Your task to perform on an android device: Go to display settings Image 0: 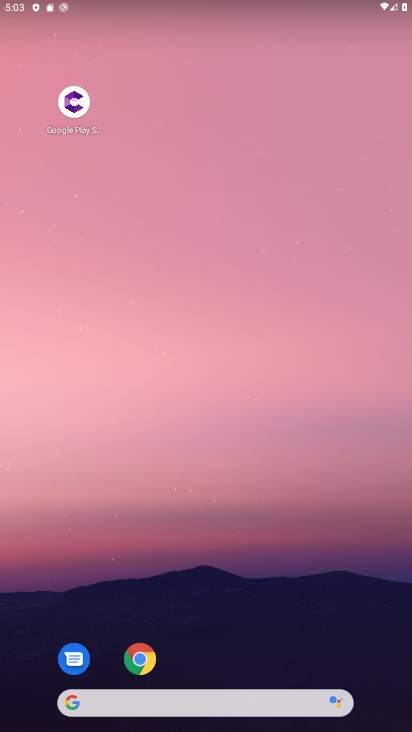
Step 0: drag from (192, 529) to (207, 90)
Your task to perform on an android device: Go to display settings Image 1: 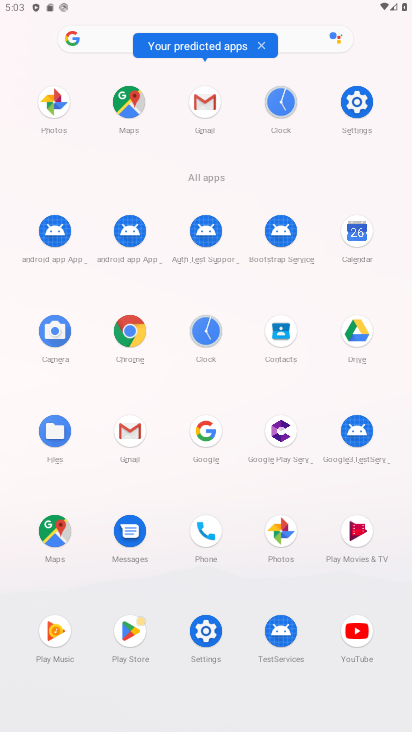
Step 1: click (351, 105)
Your task to perform on an android device: Go to display settings Image 2: 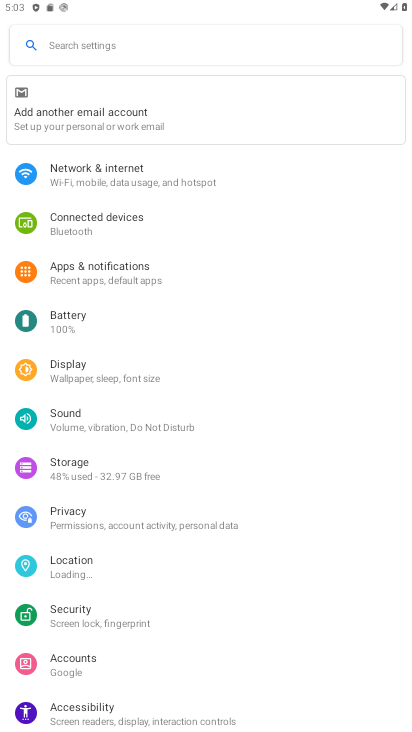
Step 2: click (73, 377)
Your task to perform on an android device: Go to display settings Image 3: 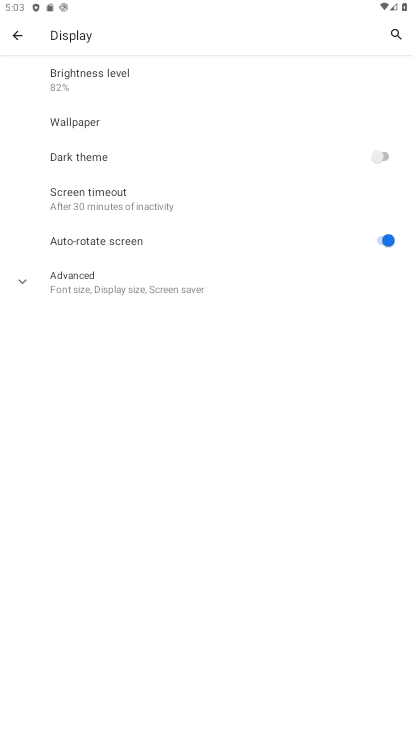
Step 3: task complete